Your task to perform on an android device: turn off wifi Image 0: 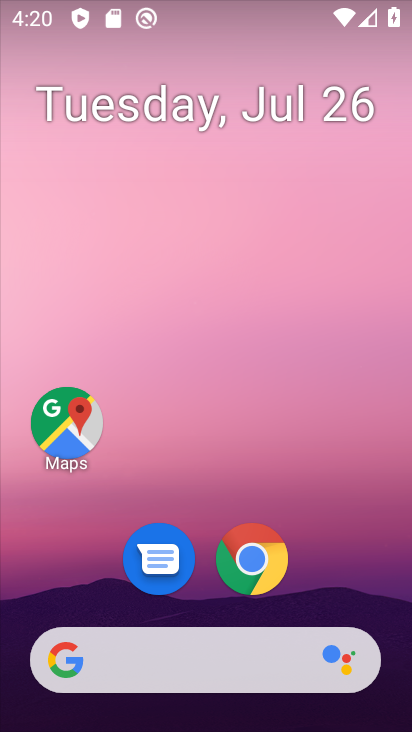
Step 0: drag from (149, 12) to (189, 564)
Your task to perform on an android device: turn off wifi Image 1: 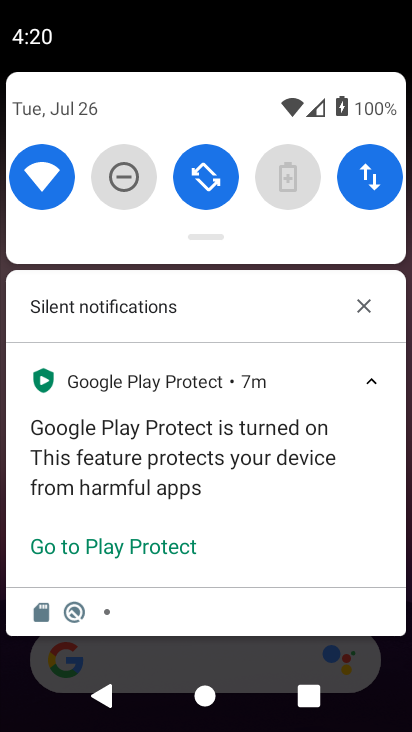
Step 1: click (48, 183)
Your task to perform on an android device: turn off wifi Image 2: 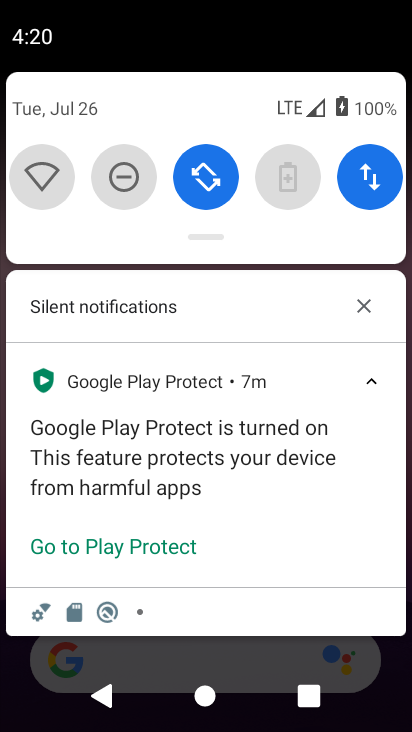
Step 2: task complete